Your task to perform on an android device: turn on location history Image 0: 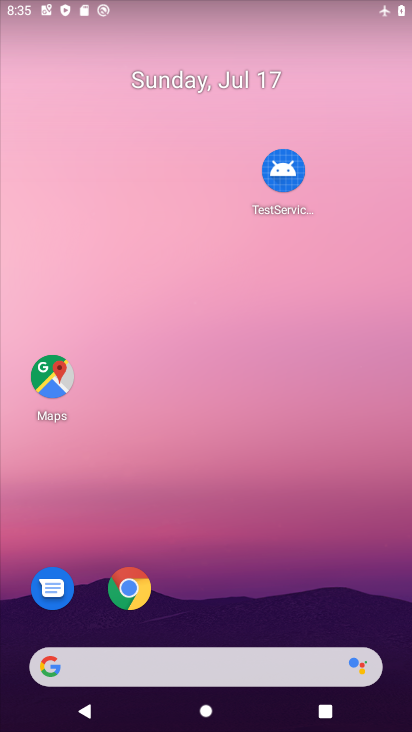
Step 0: drag from (245, 652) to (366, 12)
Your task to perform on an android device: turn on location history Image 1: 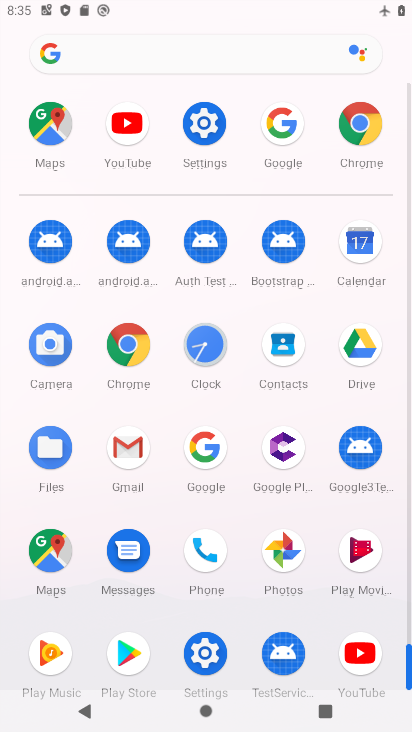
Step 1: click (212, 152)
Your task to perform on an android device: turn on location history Image 2: 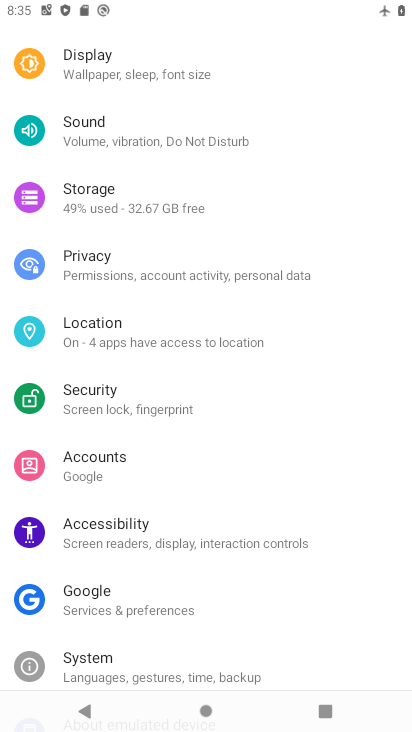
Step 2: click (139, 339)
Your task to perform on an android device: turn on location history Image 3: 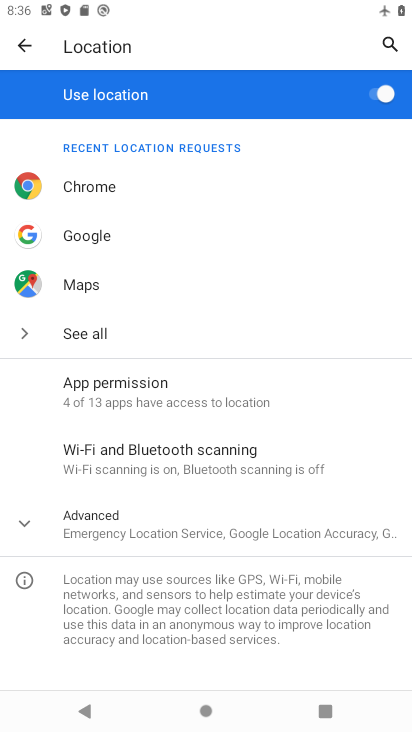
Step 3: click (113, 525)
Your task to perform on an android device: turn on location history Image 4: 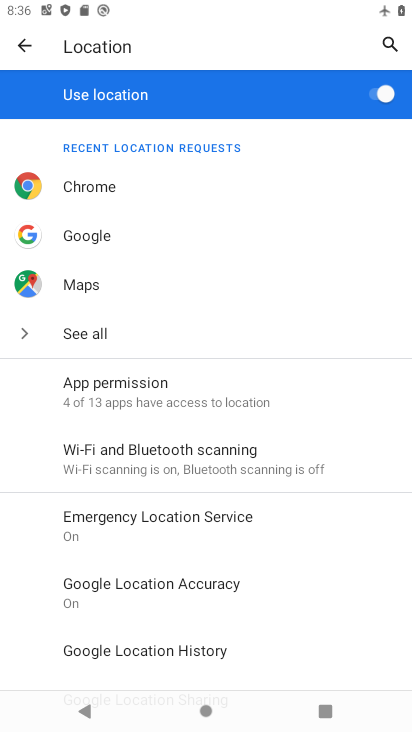
Step 4: click (199, 653)
Your task to perform on an android device: turn on location history Image 5: 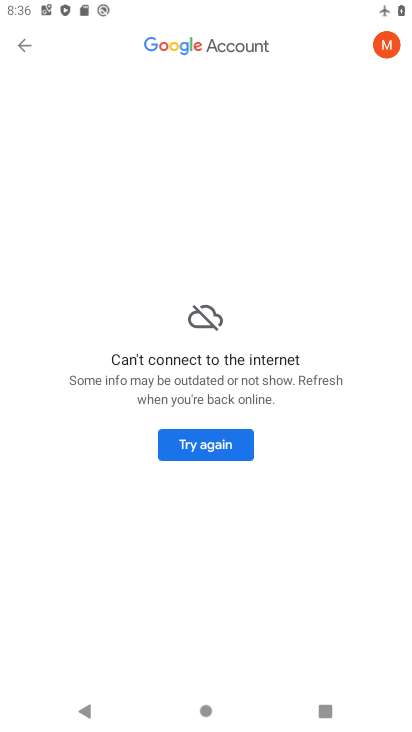
Step 5: task complete